Your task to perform on an android device: turn pop-ups on in chrome Image 0: 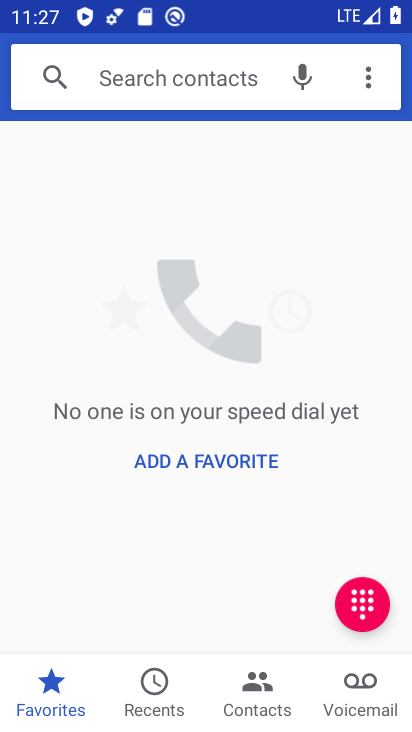
Step 0: press home button
Your task to perform on an android device: turn pop-ups on in chrome Image 1: 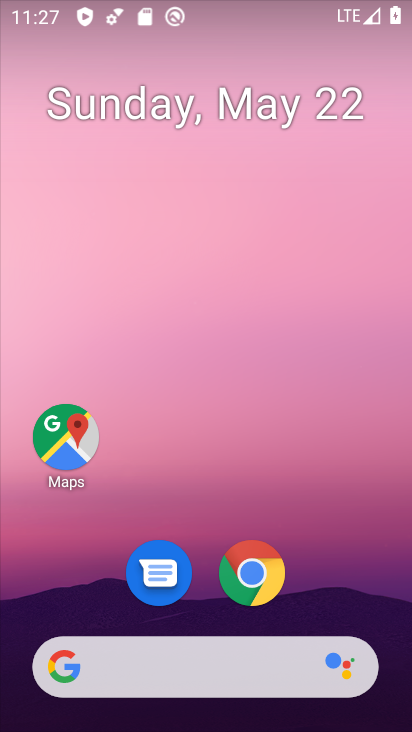
Step 1: drag from (198, 617) to (231, 24)
Your task to perform on an android device: turn pop-ups on in chrome Image 2: 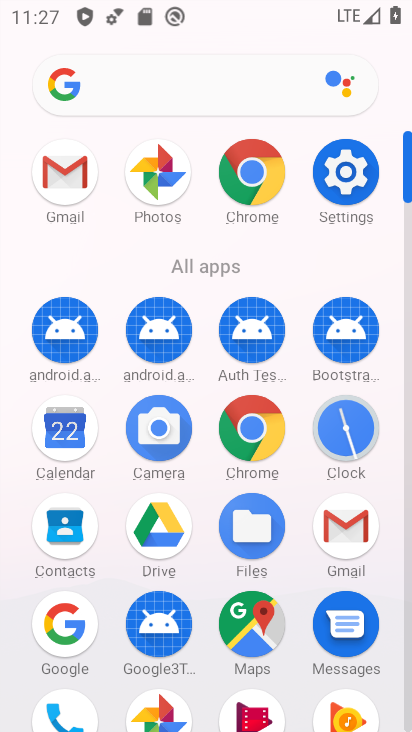
Step 2: click (250, 189)
Your task to perform on an android device: turn pop-ups on in chrome Image 3: 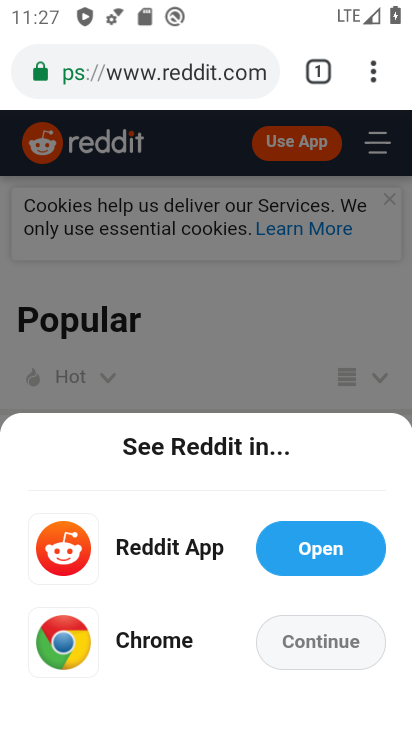
Step 3: click (379, 68)
Your task to perform on an android device: turn pop-ups on in chrome Image 4: 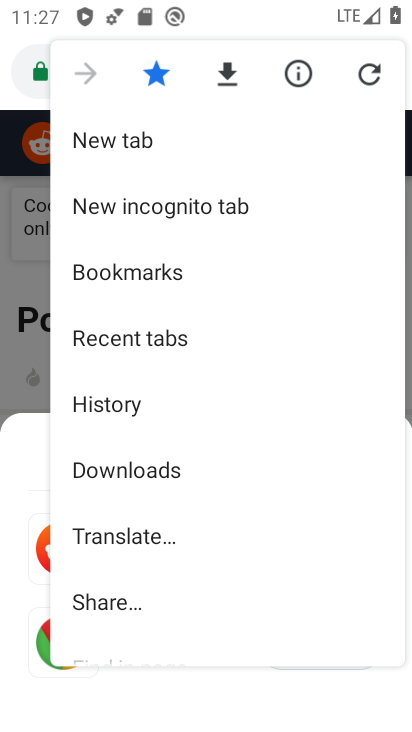
Step 4: drag from (168, 582) to (208, 212)
Your task to perform on an android device: turn pop-ups on in chrome Image 5: 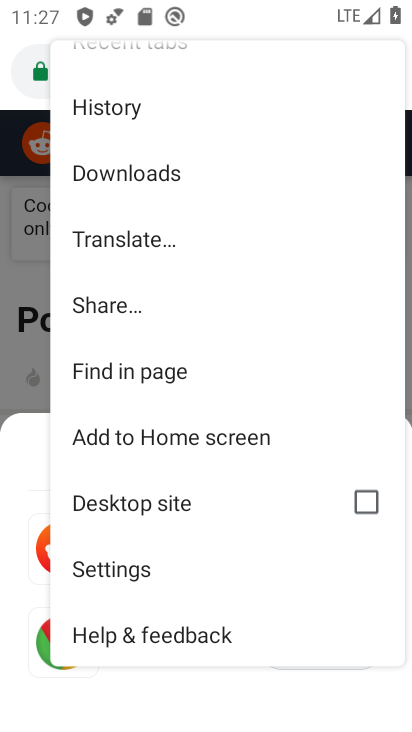
Step 5: click (149, 571)
Your task to perform on an android device: turn pop-ups on in chrome Image 6: 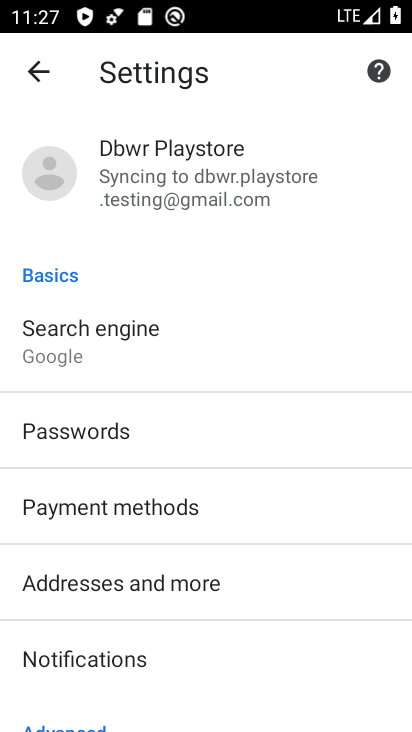
Step 6: drag from (181, 531) to (244, 28)
Your task to perform on an android device: turn pop-ups on in chrome Image 7: 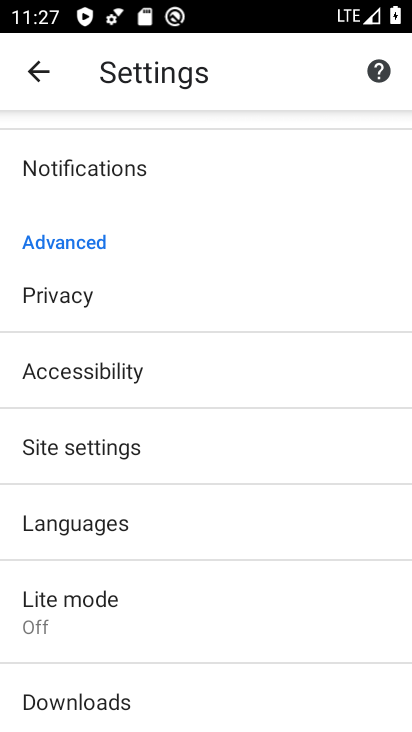
Step 7: click (128, 451)
Your task to perform on an android device: turn pop-ups on in chrome Image 8: 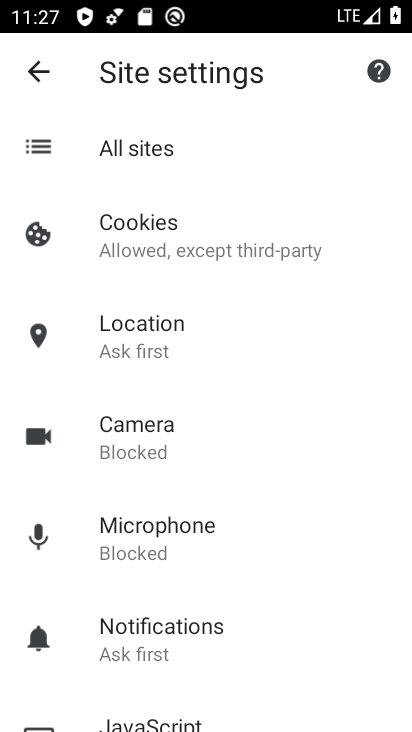
Step 8: drag from (178, 502) to (226, 197)
Your task to perform on an android device: turn pop-ups on in chrome Image 9: 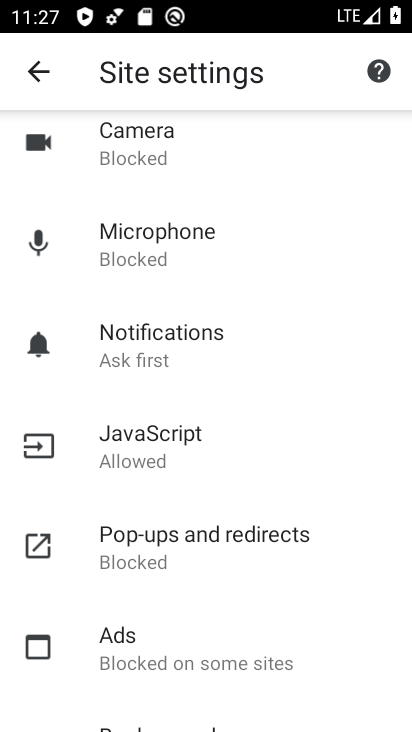
Step 9: click (158, 554)
Your task to perform on an android device: turn pop-ups on in chrome Image 10: 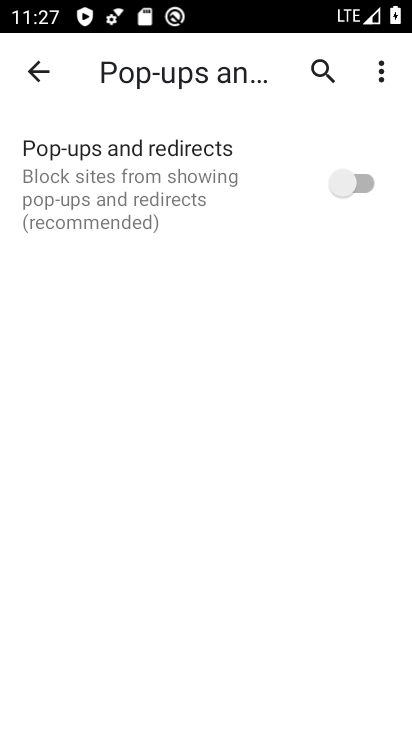
Step 10: click (378, 158)
Your task to perform on an android device: turn pop-ups on in chrome Image 11: 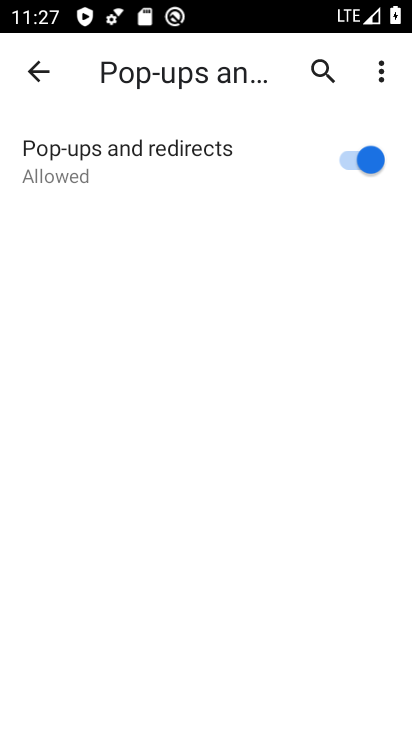
Step 11: task complete